Your task to perform on an android device: turn off improve location accuracy Image 0: 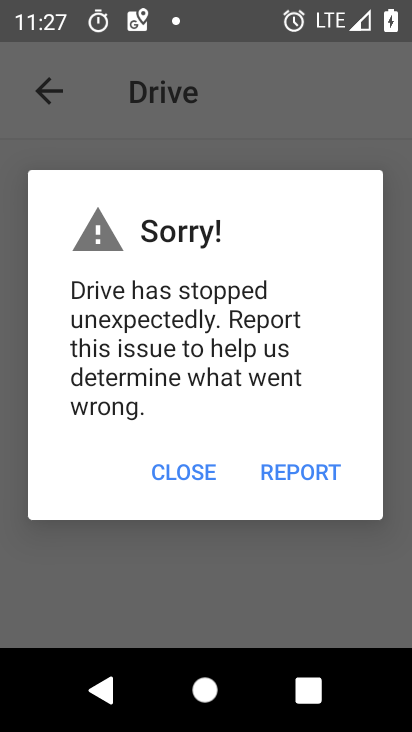
Step 0: press home button
Your task to perform on an android device: turn off improve location accuracy Image 1: 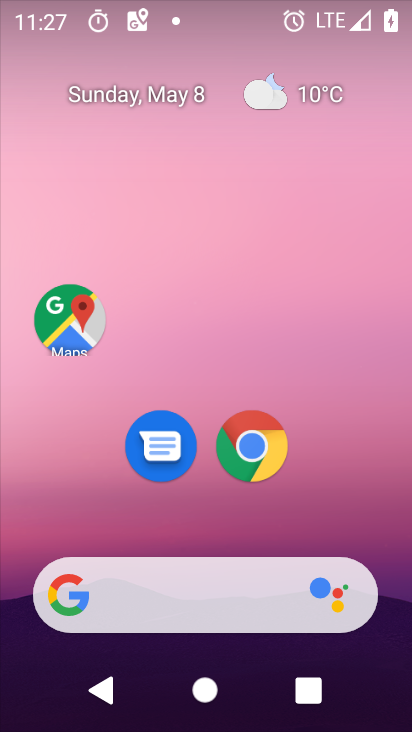
Step 1: drag from (350, 543) to (339, 57)
Your task to perform on an android device: turn off improve location accuracy Image 2: 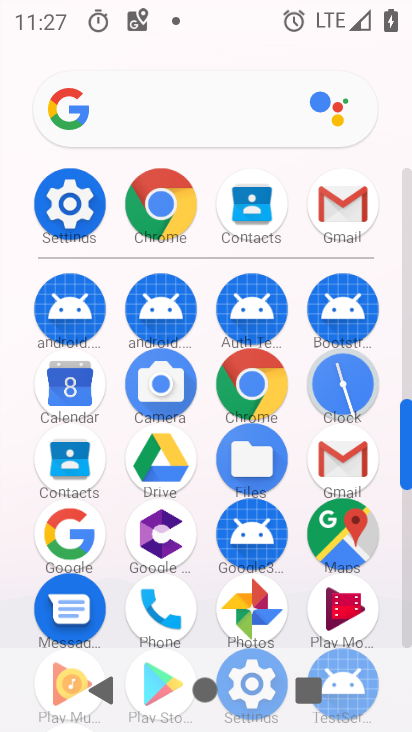
Step 2: click (69, 204)
Your task to perform on an android device: turn off improve location accuracy Image 3: 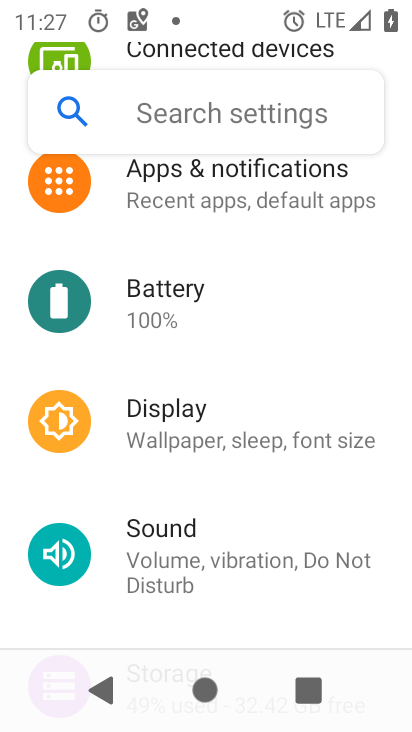
Step 3: drag from (366, 503) to (333, 199)
Your task to perform on an android device: turn off improve location accuracy Image 4: 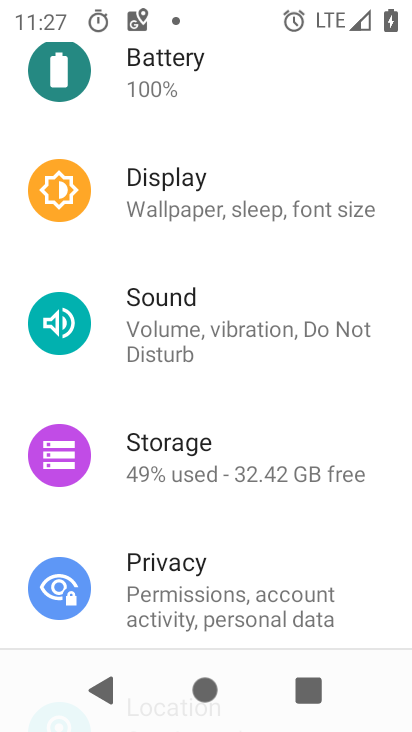
Step 4: drag from (362, 521) to (316, 169)
Your task to perform on an android device: turn off improve location accuracy Image 5: 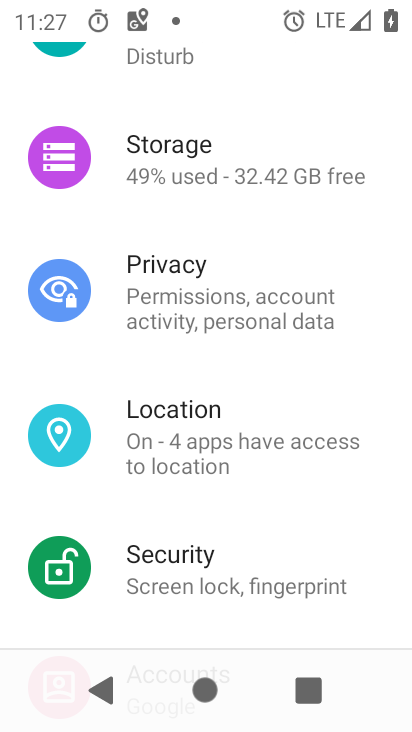
Step 5: click (174, 441)
Your task to perform on an android device: turn off improve location accuracy Image 6: 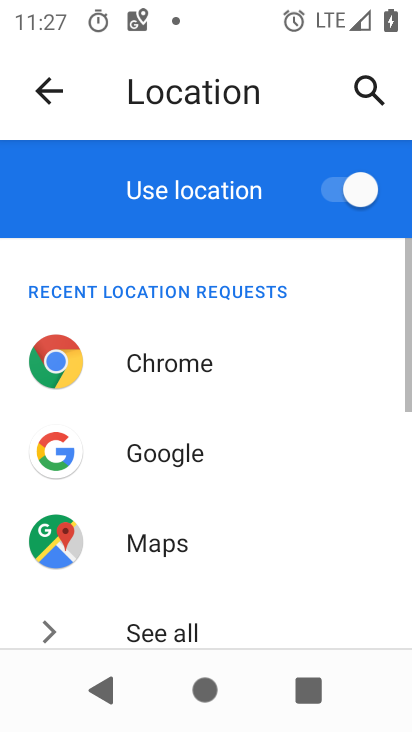
Step 6: drag from (289, 497) to (256, 134)
Your task to perform on an android device: turn off improve location accuracy Image 7: 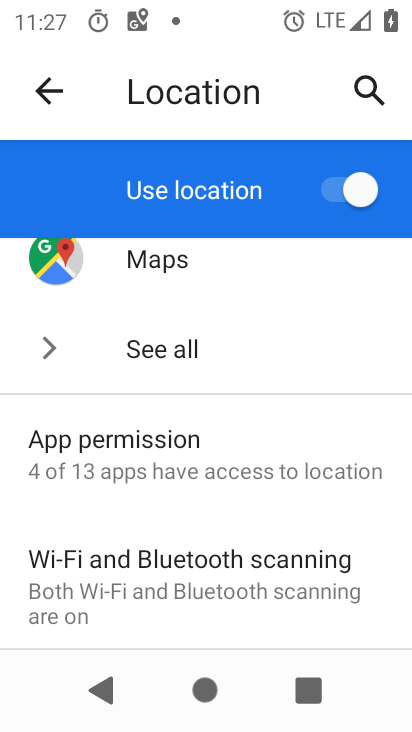
Step 7: drag from (259, 492) to (248, 289)
Your task to perform on an android device: turn off improve location accuracy Image 8: 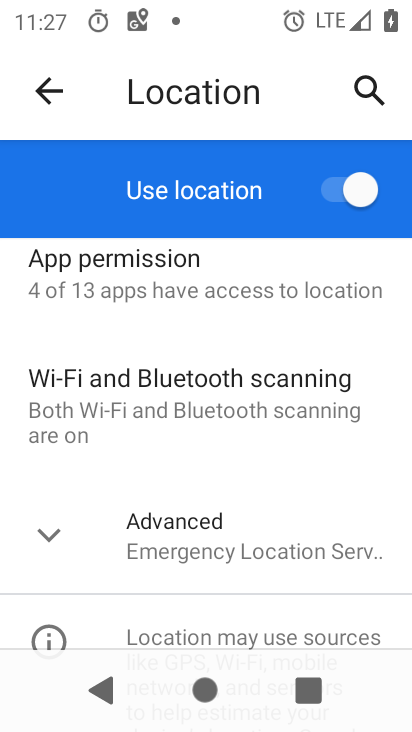
Step 8: click (41, 544)
Your task to perform on an android device: turn off improve location accuracy Image 9: 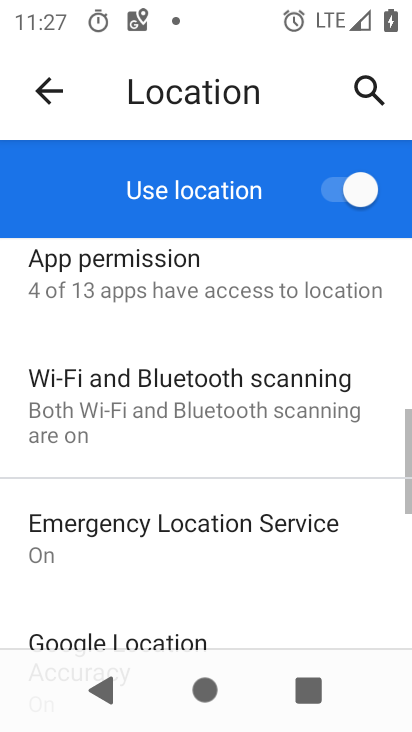
Step 9: drag from (234, 593) to (206, 296)
Your task to perform on an android device: turn off improve location accuracy Image 10: 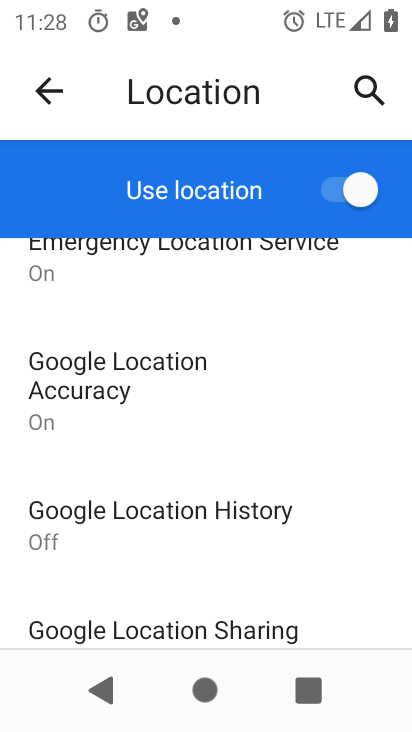
Step 10: click (100, 401)
Your task to perform on an android device: turn off improve location accuracy Image 11: 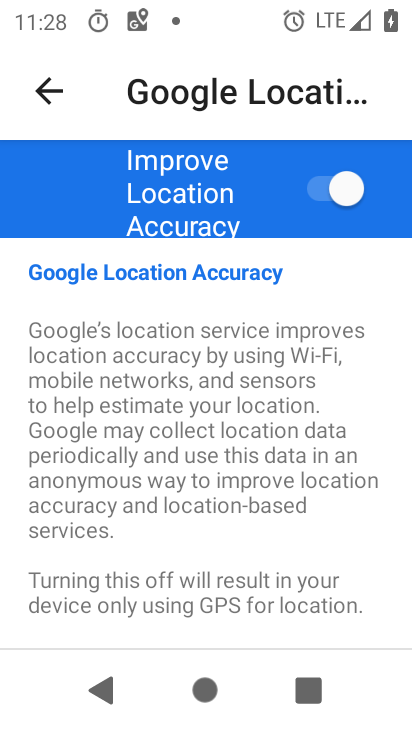
Step 11: click (328, 185)
Your task to perform on an android device: turn off improve location accuracy Image 12: 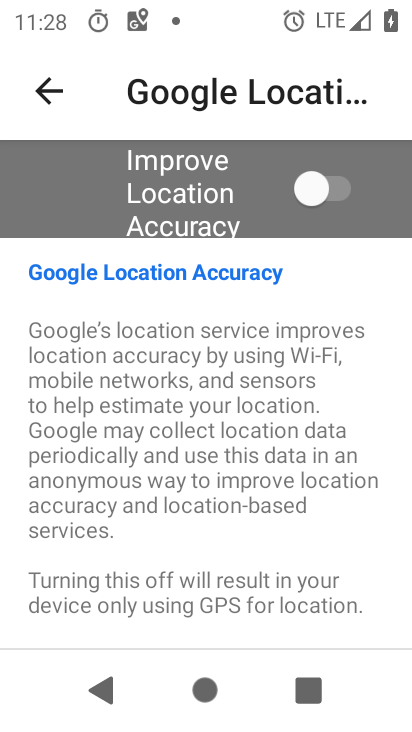
Step 12: task complete